Your task to perform on an android device: add a contact in the contacts app Image 0: 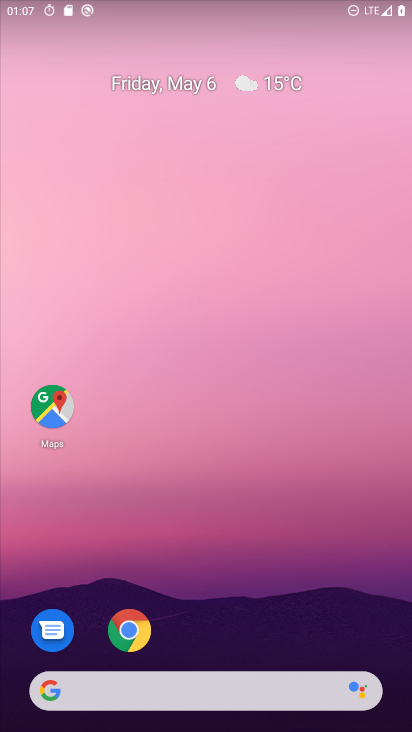
Step 0: drag from (292, 556) to (291, 110)
Your task to perform on an android device: add a contact in the contacts app Image 1: 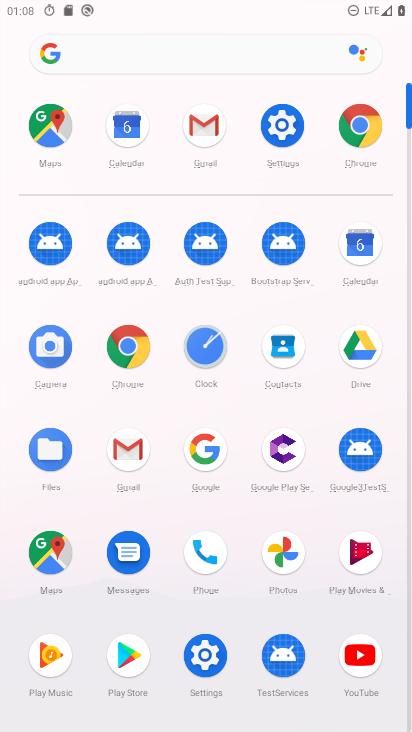
Step 1: click (289, 351)
Your task to perform on an android device: add a contact in the contacts app Image 2: 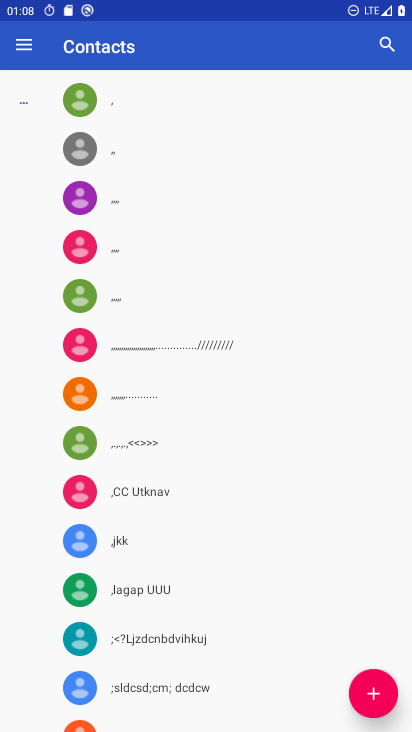
Step 2: click (375, 691)
Your task to perform on an android device: add a contact in the contacts app Image 3: 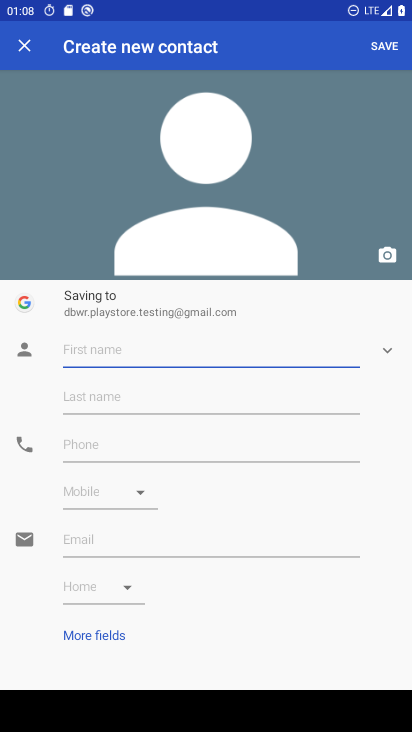
Step 3: click (266, 352)
Your task to perform on an android device: add a contact in the contacts app Image 4: 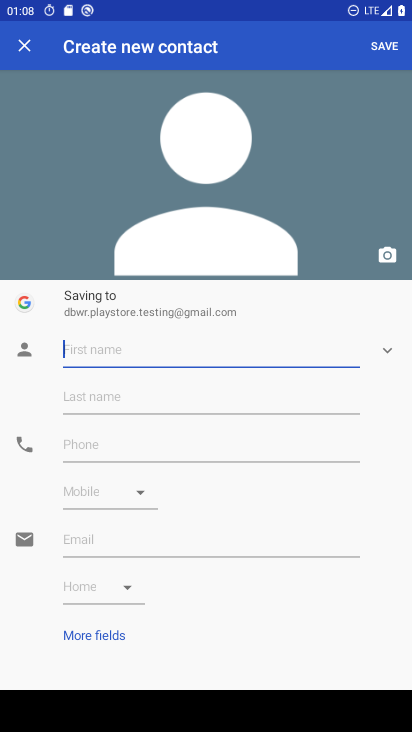
Step 4: type "lop"
Your task to perform on an android device: add a contact in the contacts app Image 5: 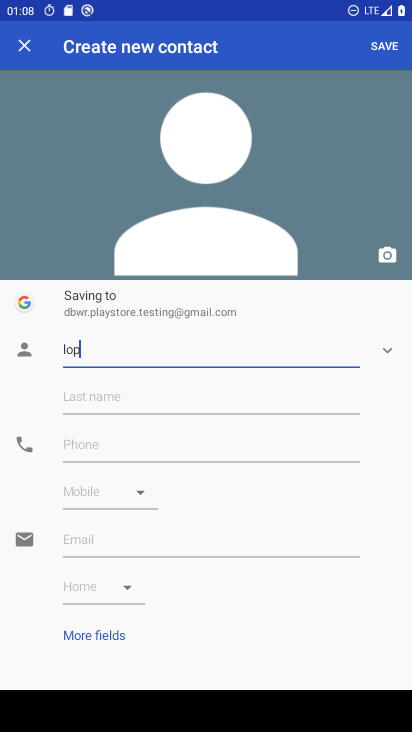
Step 5: click (389, 43)
Your task to perform on an android device: add a contact in the contacts app Image 6: 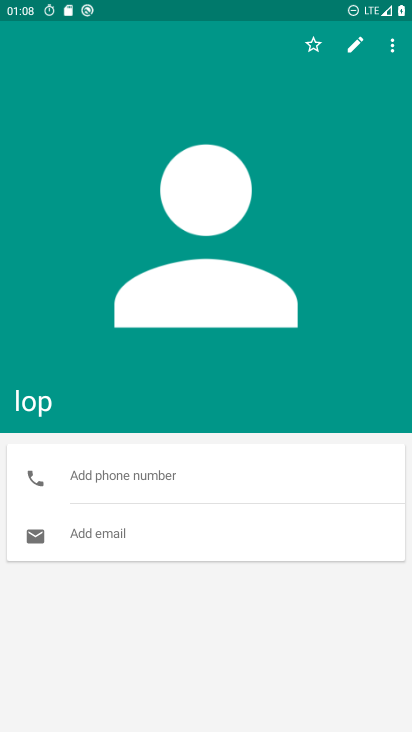
Step 6: task complete